Your task to perform on an android device: Go to accessibility settings Image 0: 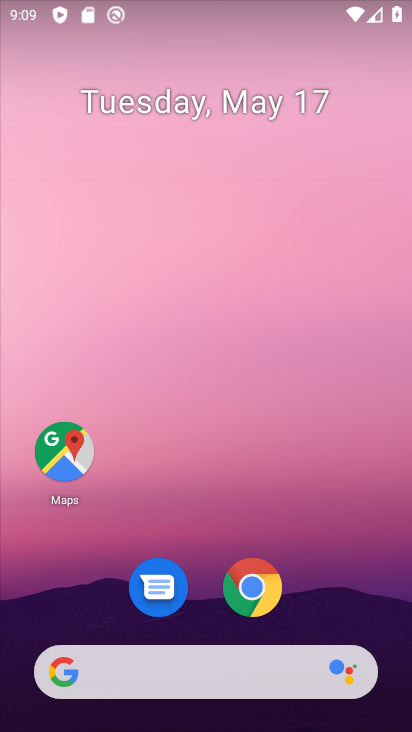
Step 0: drag from (350, 598) to (264, 158)
Your task to perform on an android device: Go to accessibility settings Image 1: 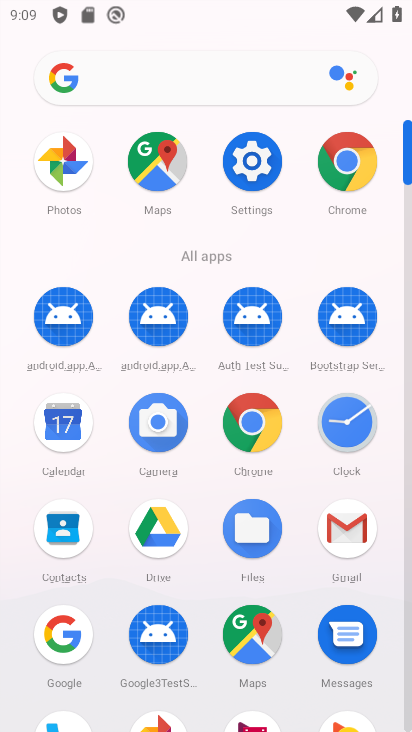
Step 1: click (239, 173)
Your task to perform on an android device: Go to accessibility settings Image 2: 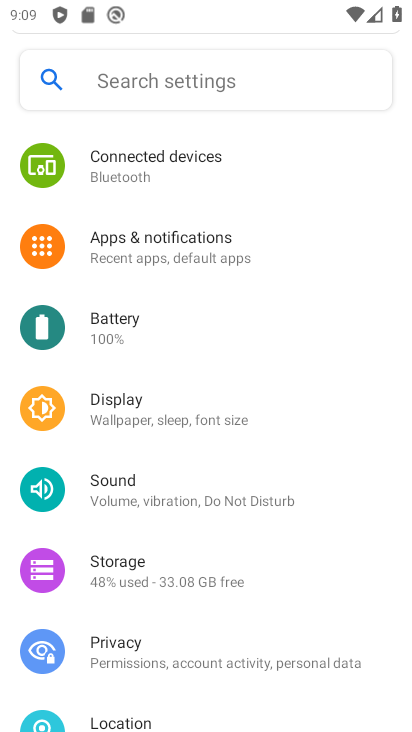
Step 2: drag from (251, 542) to (342, 143)
Your task to perform on an android device: Go to accessibility settings Image 3: 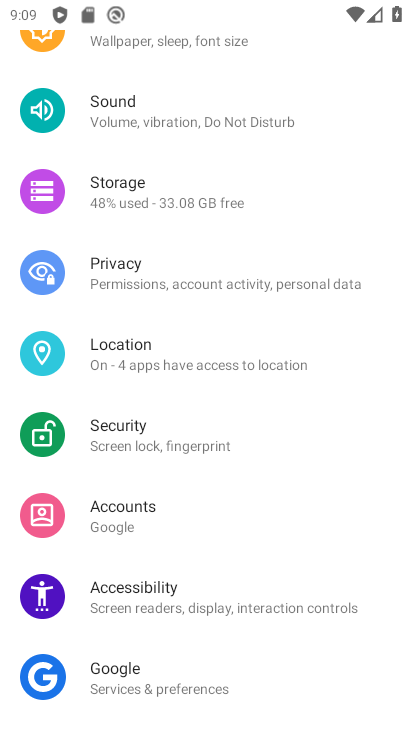
Step 3: click (222, 598)
Your task to perform on an android device: Go to accessibility settings Image 4: 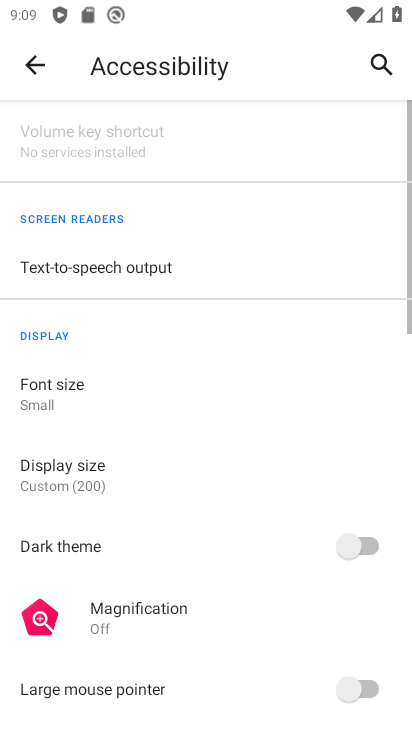
Step 4: task complete